Your task to perform on an android device: Open sound settings Image 0: 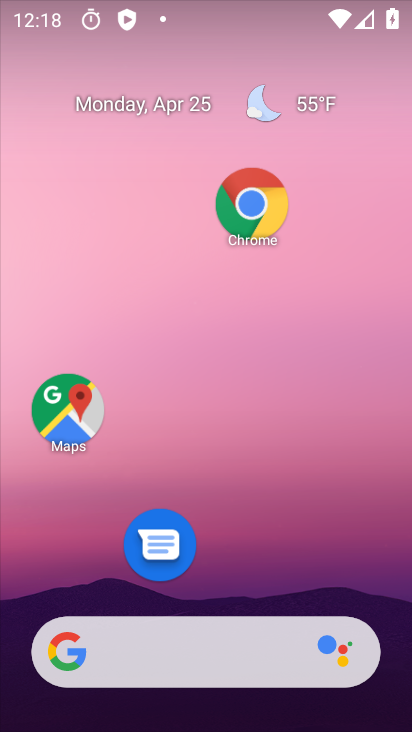
Step 0: drag from (305, 674) to (392, 274)
Your task to perform on an android device: Open sound settings Image 1: 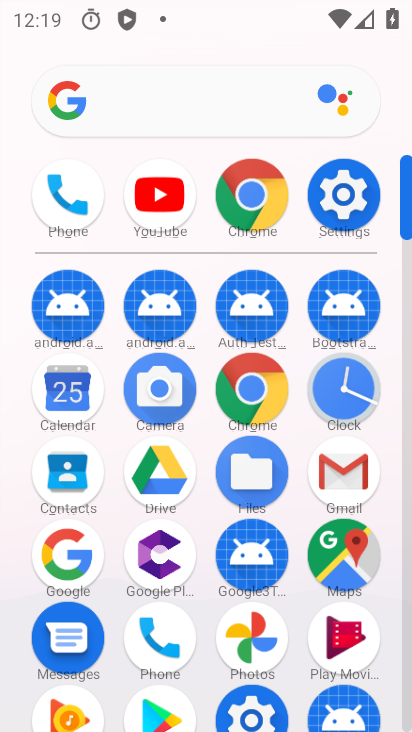
Step 1: click (354, 185)
Your task to perform on an android device: Open sound settings Image 2: 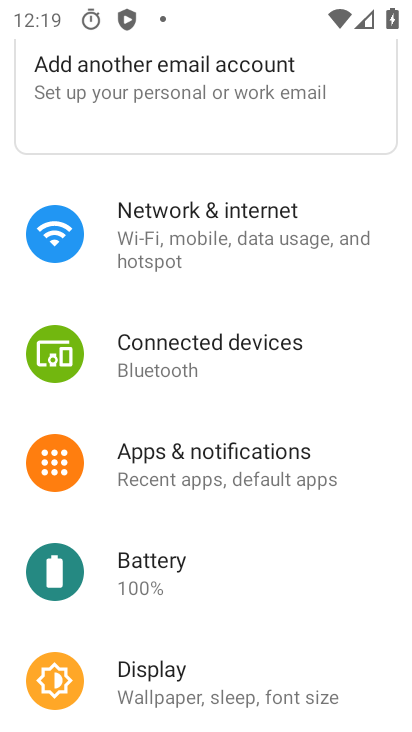
Step 2: drag from (185, 201) to (213, 315)
Your task to perform on an android device: Open sound settings Image 3: 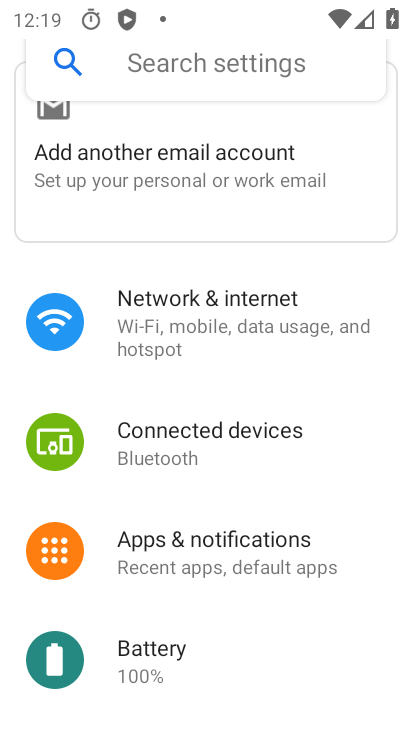
Step 3: click (205, 68)
Your task to perform on an android device: Open sound settings Image 4: 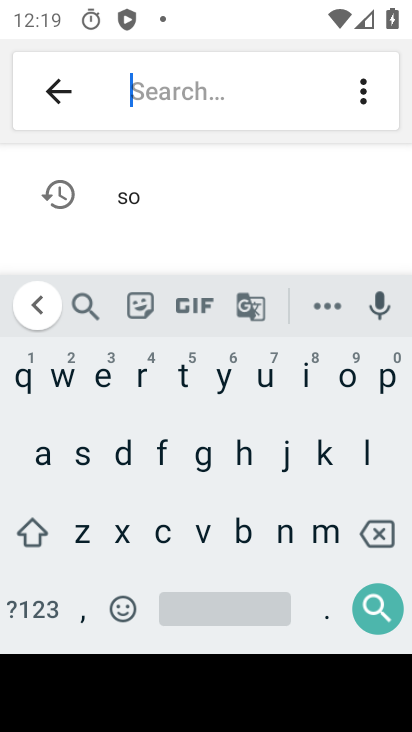
Step 4: click (129, 206)
Your task to perform on an android device: Open sound settings Image 5: 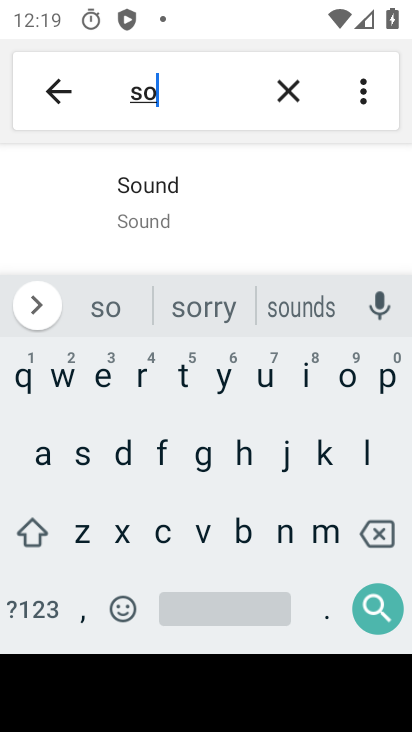
Step 5: click (130, 206)
Your task to perform on an android device: Open sound settings Image 6: 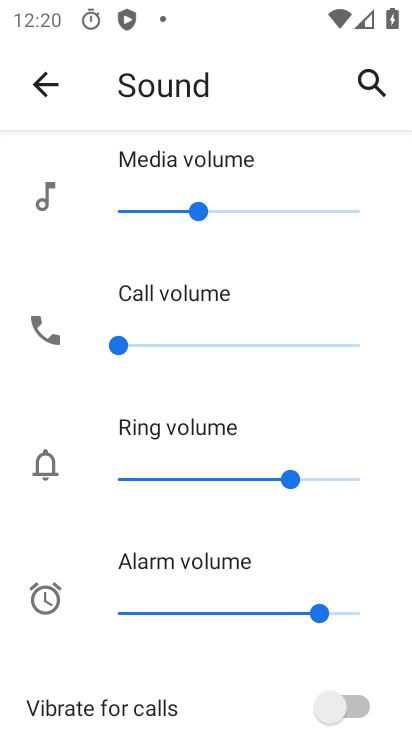
Step 6: task complete